Your task to perform on an android device: Open the phone app and click the voicemail tab. Image 0: 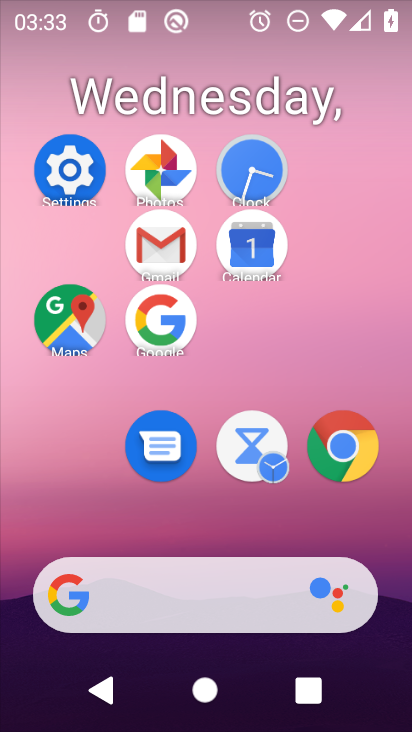
Step 0: drag from (272, 421) to (287, 56)
Your task to perform on an android device: Open the phone app and click the voicemail tab. Image 1: 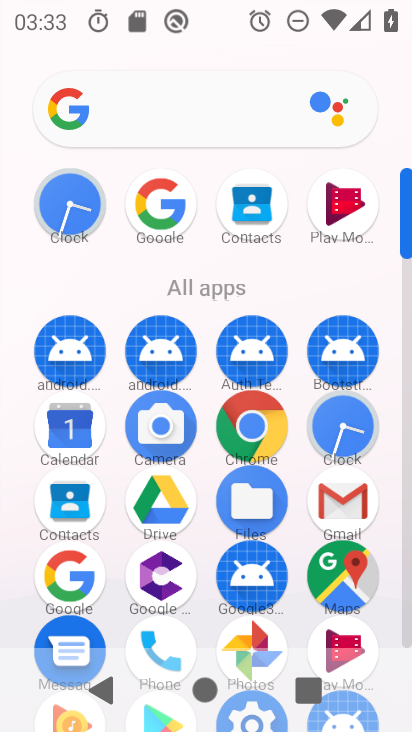
Step 1: drag from (169, 585) to (125, 197)
Your task to perform on an android device: Open the phone app and click the voicemail tab. Image 2: 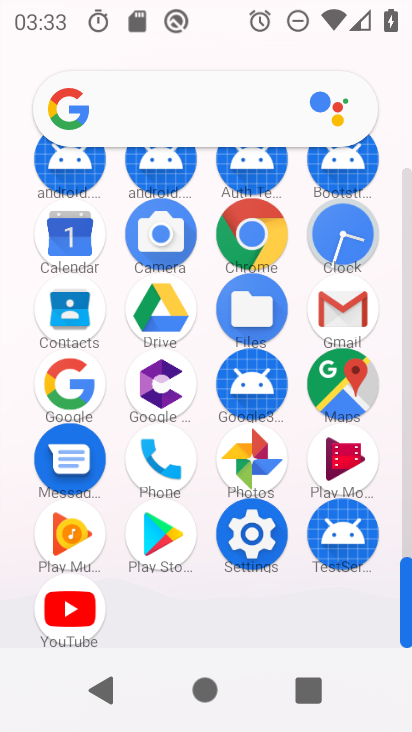
Step 2: click (169, 470)
Your task to perform on an android device: Open the phone app and click the voicemail tab. Image 3: 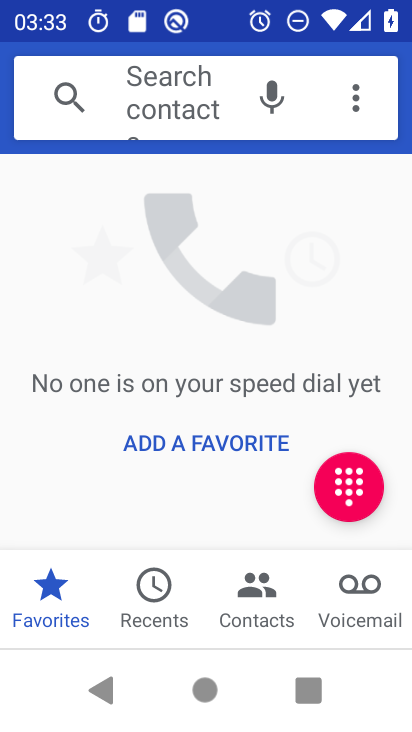
Step 3: click (371, 612)
Your task to perform on an android device: Open the phone app and click the voicemail tab. Image 4: 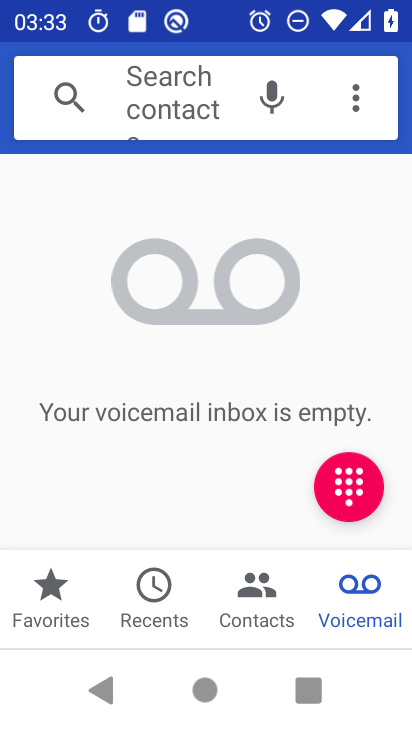
Step 4: task complete